Your task to perform on an android device: toggle improve location accuracy Image 0: 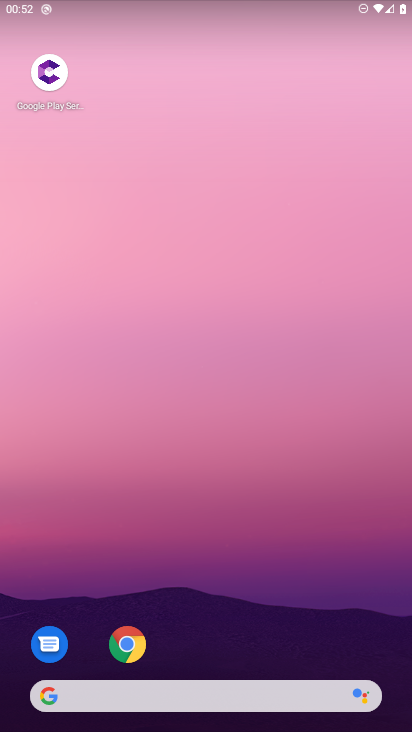
Step 0: drag from (68, 497) to (139, 202)
Your task to perform on an android device: toggle improve location accuracy Image 1: 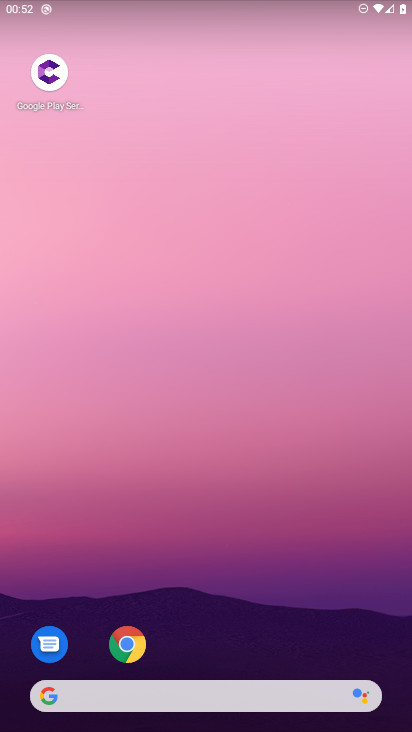
Step 1: drag from (17, 704) to (199, 121)
Your task to perform on an android device: toggle improve location accuracy Image 2: 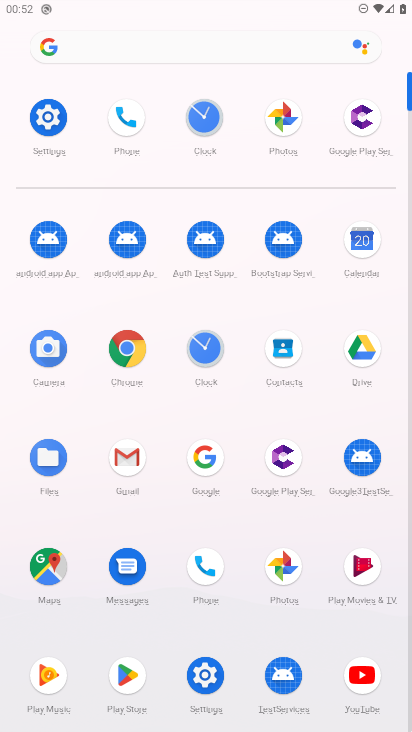
Step 2: click (199, 681)
Your task to perform on an android device: toggle improve location accuracy Image 3: 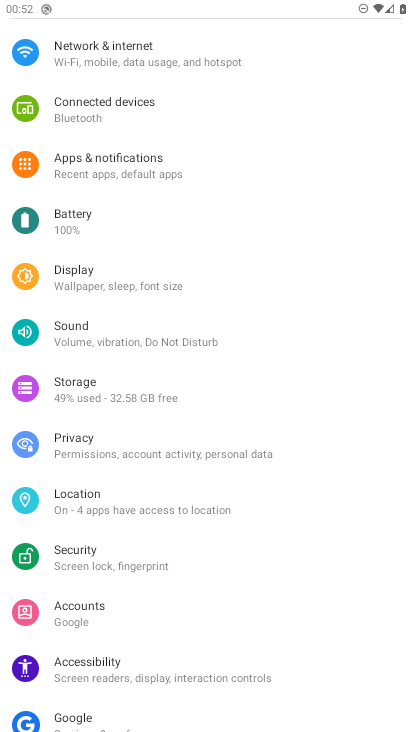
Step 3: click (109, 512)
Your task to perform on an android device: toggle improve location accuracy Image 4: 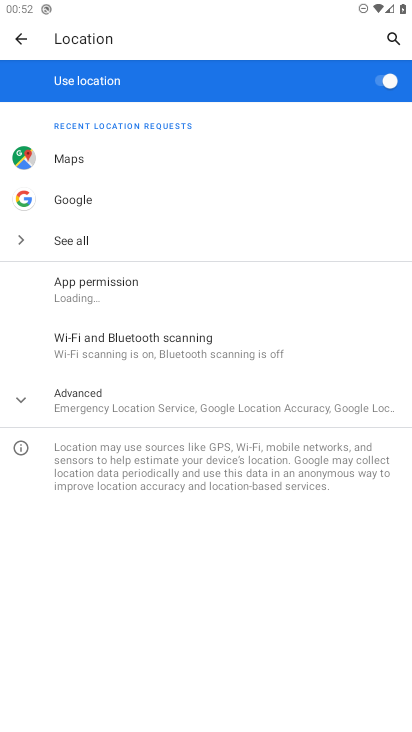
Step 4: click (100, 411)
Your task to perform on an android device: toggle improve location accuracy Image 5: 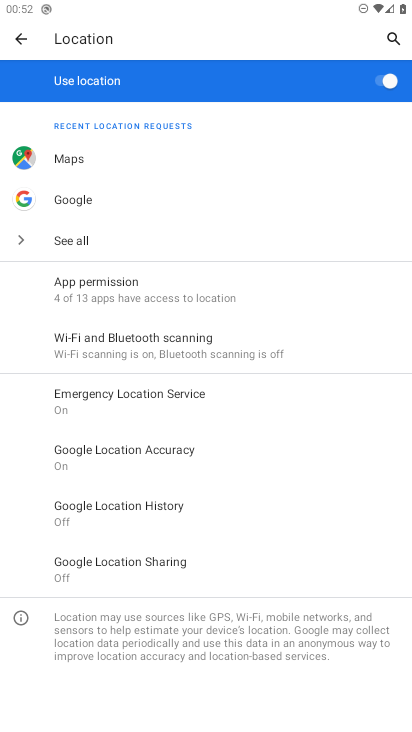
Step 5: click (101, 452)
Your task to perform on an android device: toggle improve location accuracy Image 6: 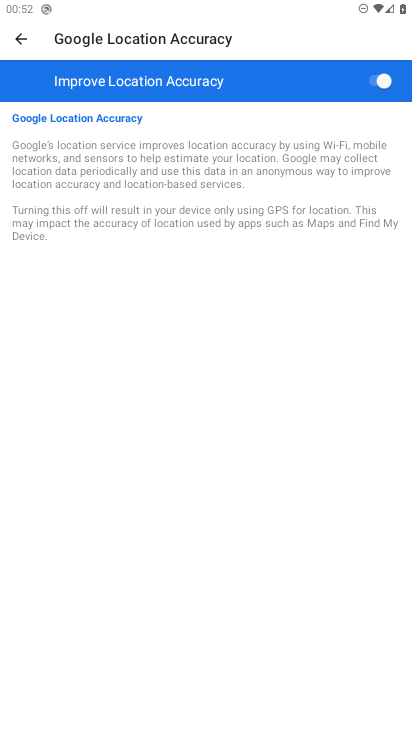
Step 6: task complete